Your task to perform on an android device: Search for seafood restaurants on Google Maps Image 0: 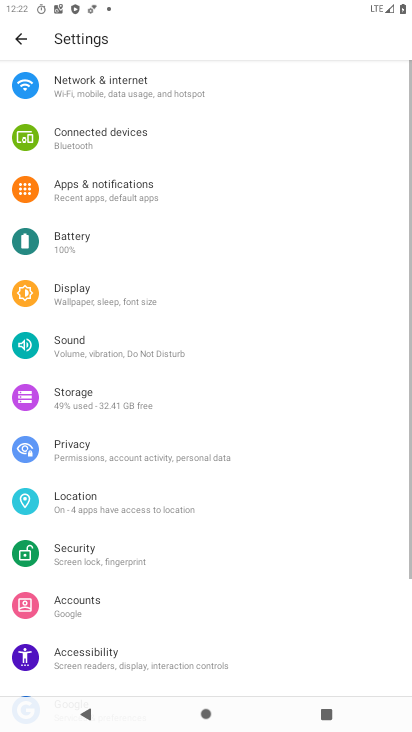
Step 0: press home button
Your task to perform on an android device: Search for seafood restaurants on Google Maps Image 1: 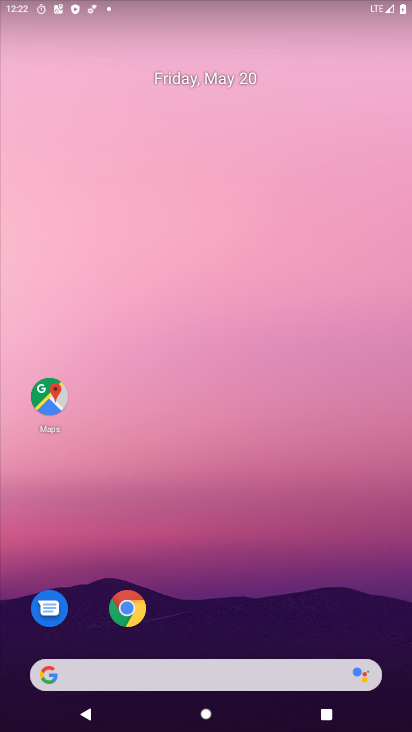
Step 1: drag from (385, 628) to (360, 225)
Your task to perform on an android device: Search for seafood restaurants on Google Maps Image 2: 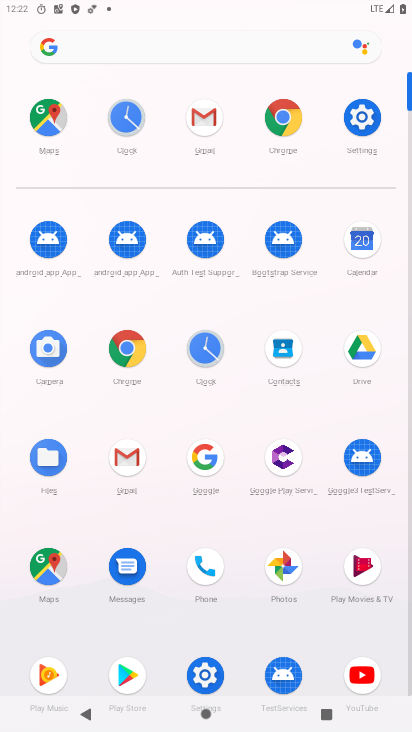
Step 2: click (49, 572)
Your task to perform on an android device: Search for seafood restaurants on Google Maps Image 3: 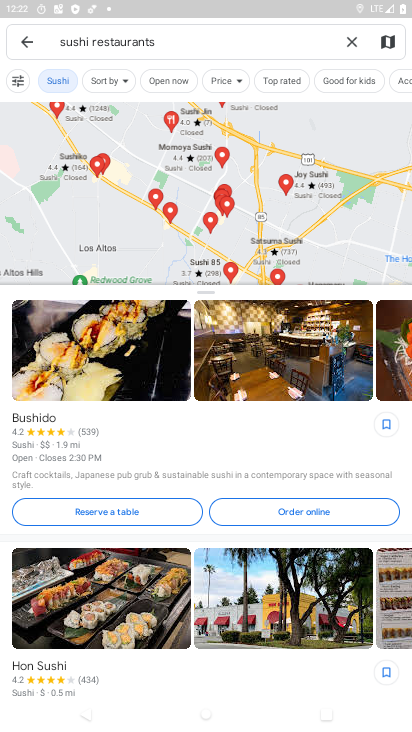
Step 3: click (355, 45)
Your task to perform on an android device: Search for seafood restaurants on Google Maps Image 4: 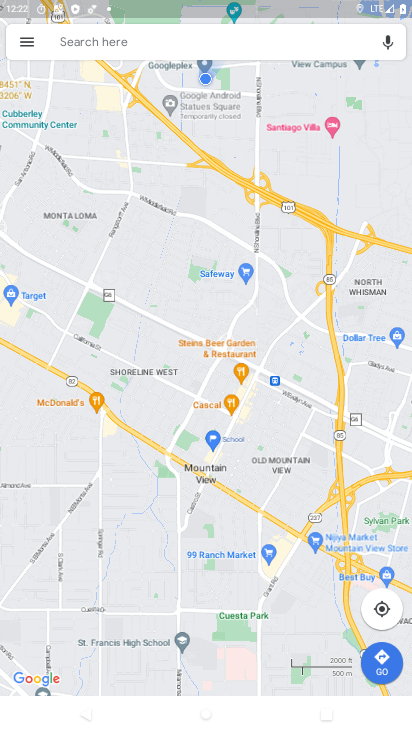
Step 4: click (235, 46)
Your task to perform on an android device: Search for seafood restaurants on Google Maps Image 5: 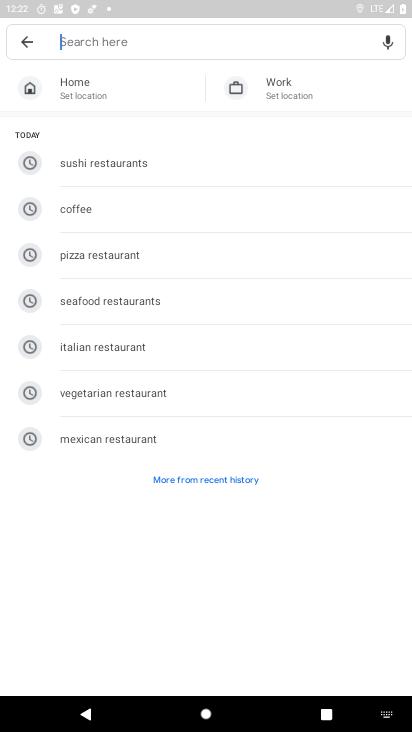
Step 5: click (174, 305)
Your task to perform on an android device: Search for seafood restaurants on Google Maps Image 6: 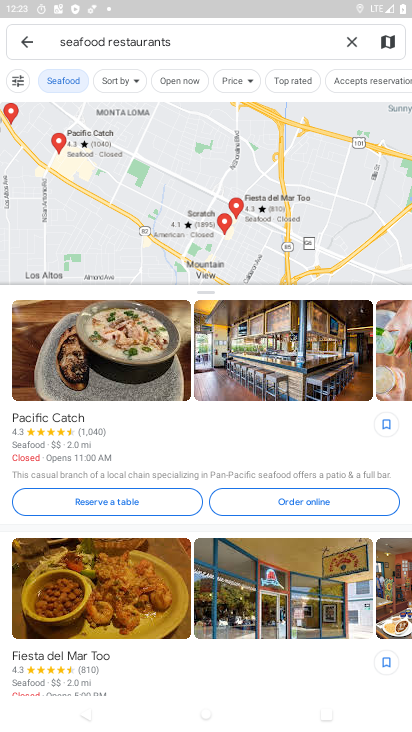
Step 6: task complete